Your task to perform on an android device: turn off priority inbox in the gmail app Image 0: 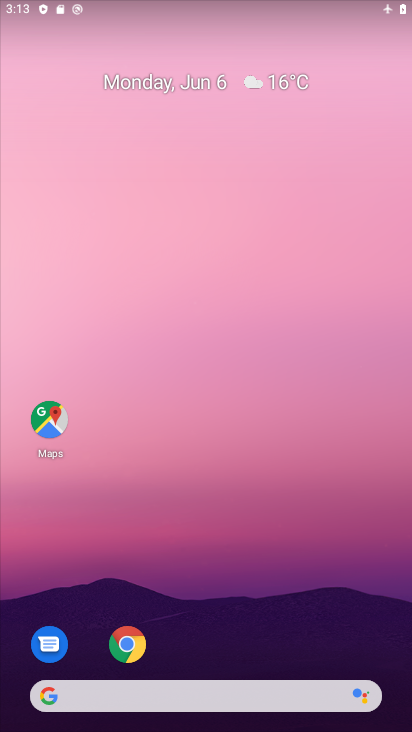
Step 0: drag from (218, 641) to (247, 109)
Your task to perform on an android device: turn off priority inbox in the gmail app Image 1: 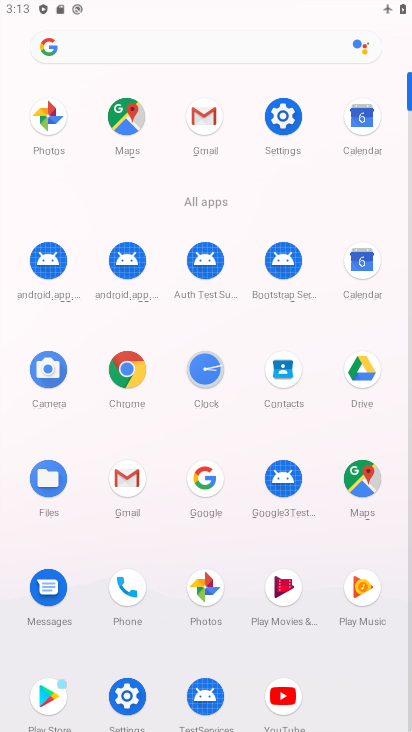
Step 1: click (284, 123)
Your task to perform on an android device: turn off priority inbox in the gmail app Image 2: 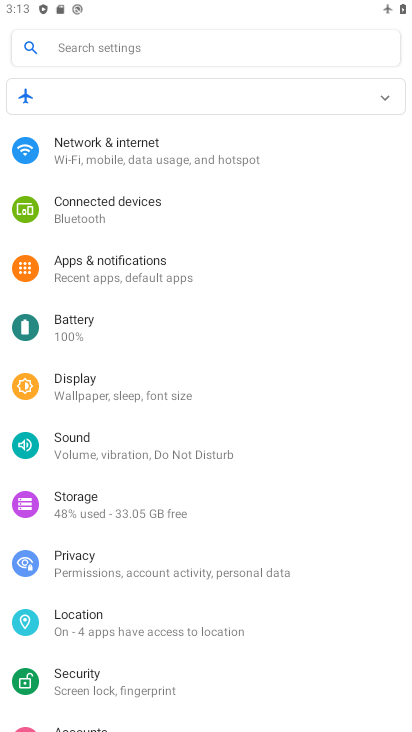
Step 2: drag from (135, 636) to (129, 365)
Your task to perform on an android device: turn off priority inbox in the gmail app Image 3: 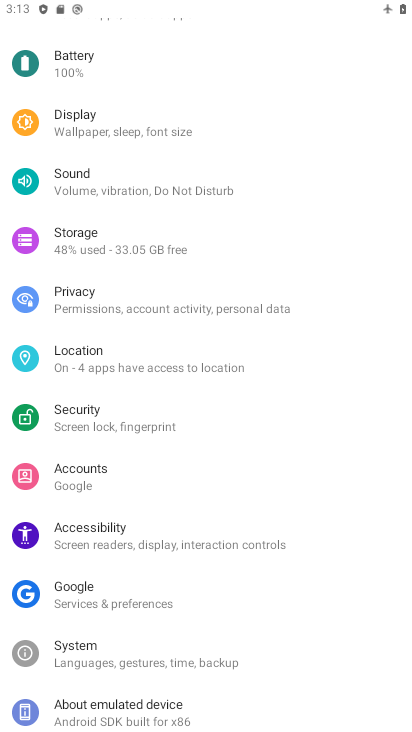
Step 3: press home button
Your task to perform on an android device: turn off priority inbox in the gmail app Image 4: 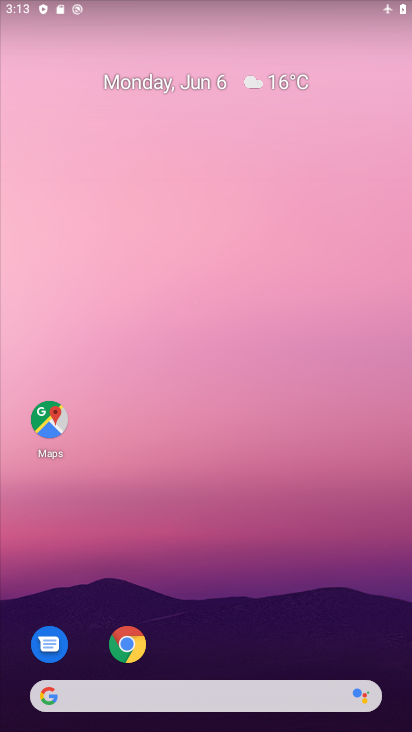
Step 4: drag from (226, 585) to (251, 199)
Your task to perform on an android device: turn off priority inbox in the gmail app Image 5: 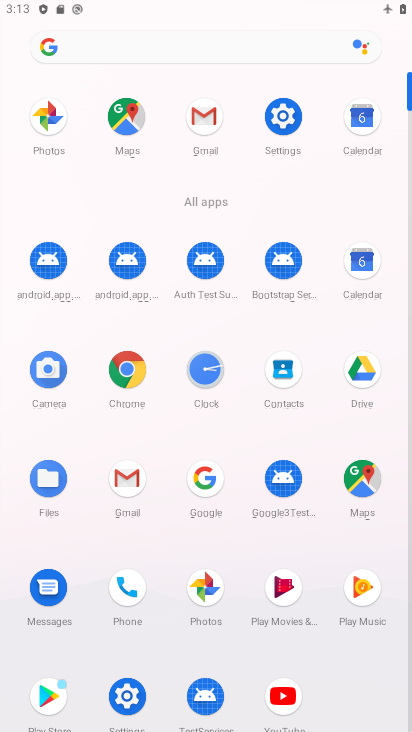
Step 5: click (117, 490)
Your task to perform on an android device: turn off priority inbox in the gmail app Image 6: 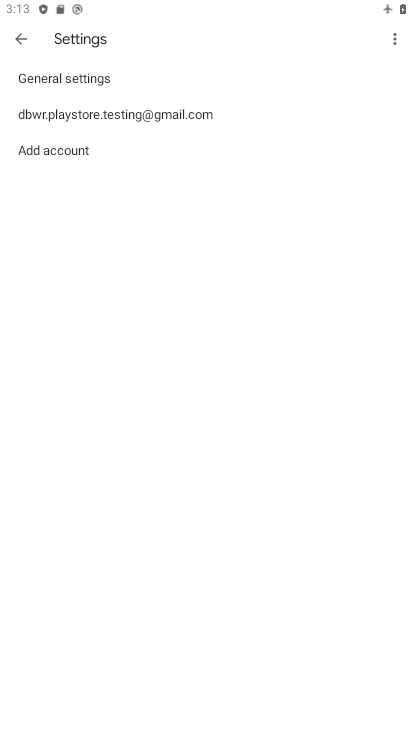
Step 6: click (123, 112)
Your task to perform on an android device: turn off priority inbox in the gmail app Image 7: 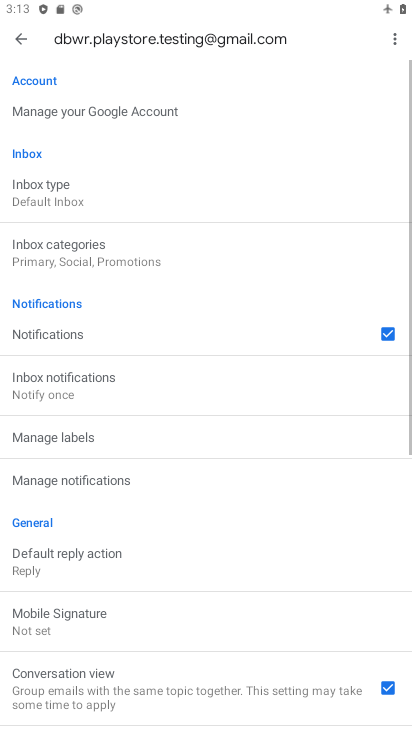
Step 7: click (83, 185)
Your task to perform on an android device: turn off priority inbox in the gmail app Image 8: 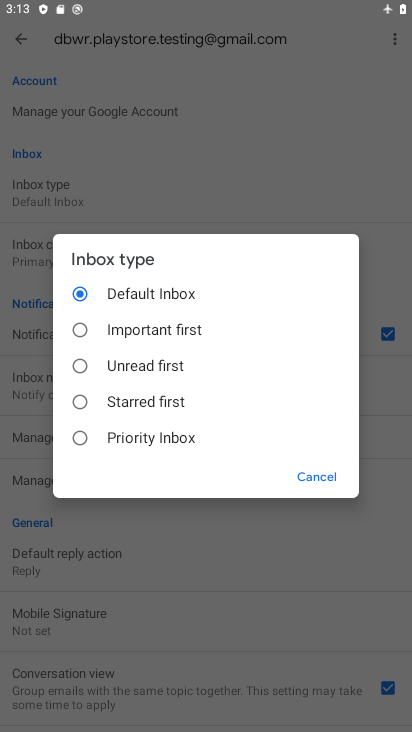
Step 8: task complete